Your task to perform on an android device: add a contact Image 0: 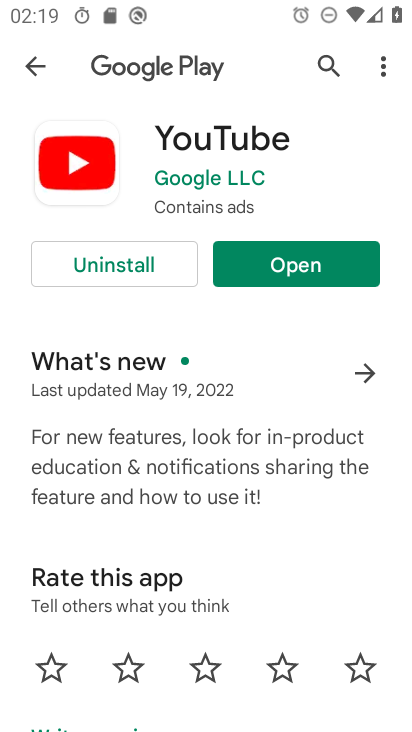
Step 0: press home button
Your task to perform on an android device: add a contact Image 1: 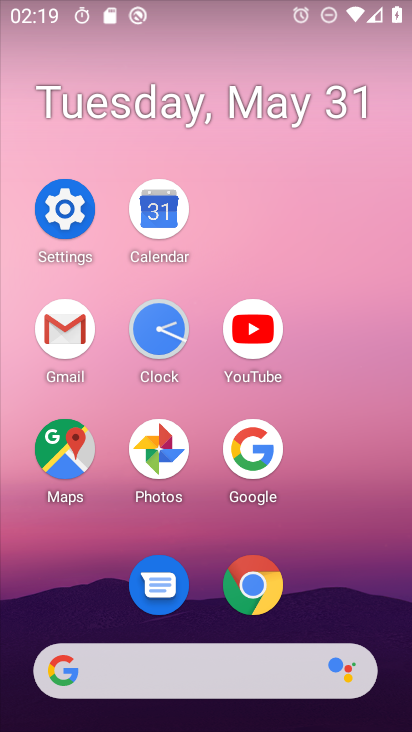
Step 1: drag from (348, 492) to (351, 121)
Your task to perform on an android device: add a contact Image 2: 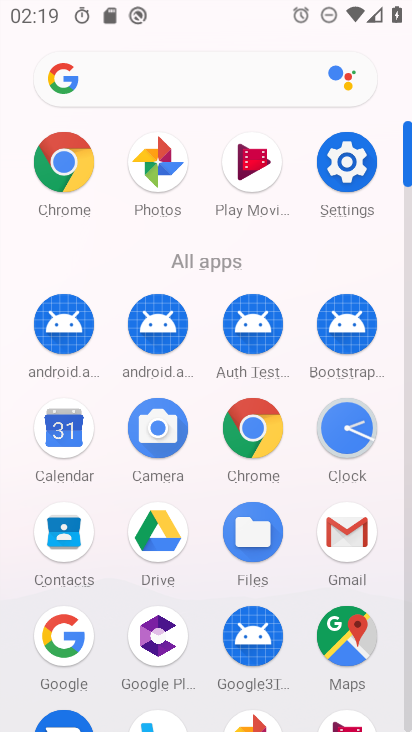
Step 2: click (79, 546)
Your task to perform on an android device: add a contact Image 3: 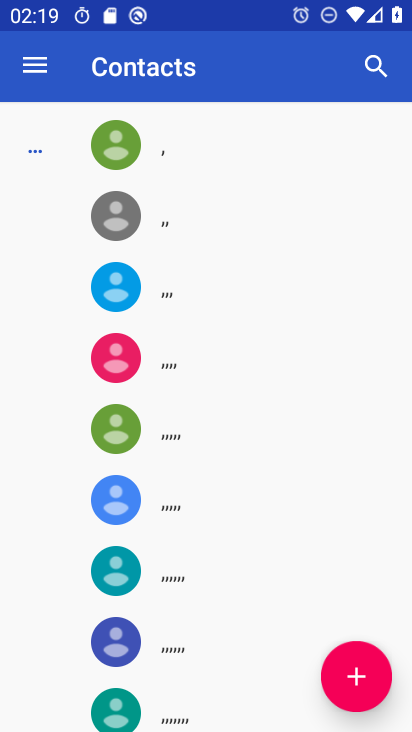
Step 3: click (341, 677)
Your task to perform on an android device: add a contact Image 4: 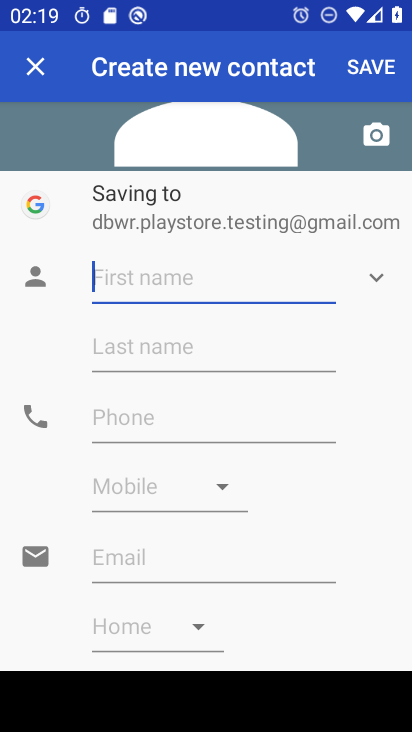
Step 4: type "yydde"
Your task to perform on an android device: add a contact Image 5: 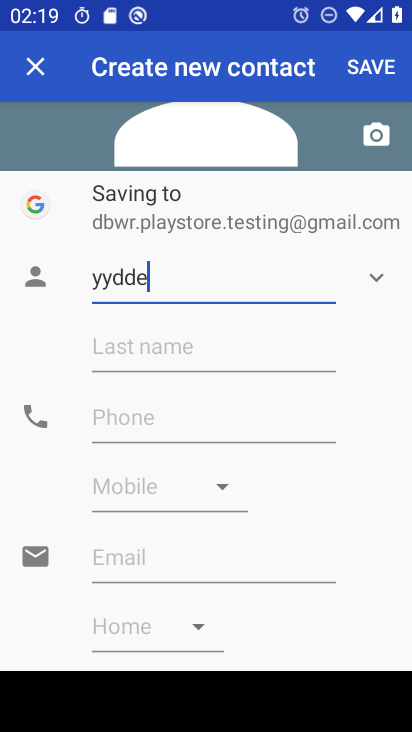
Step 5: click (194, 415)
Your task to perform on an android device: add a contact Image 6: 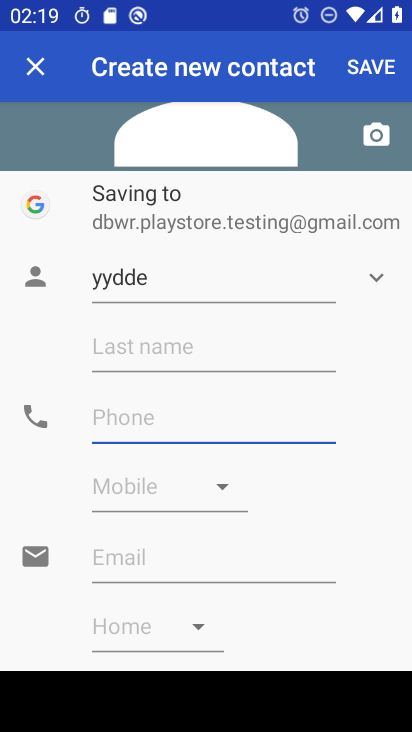
Step 6: type "9988776654"
Your task to perform on an android device: add a contact Image 7: 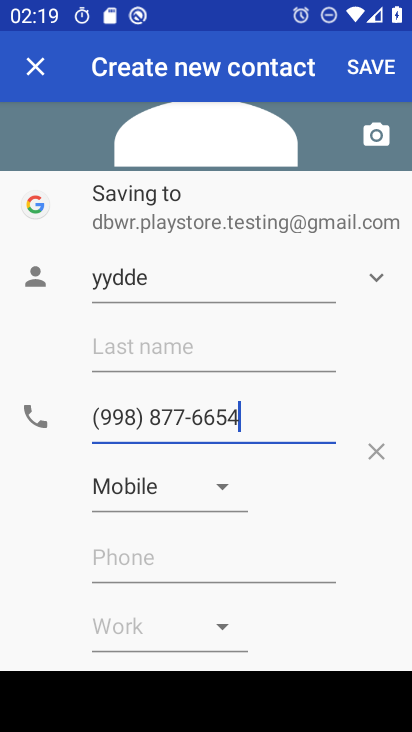
Step 7: click (390, 69)
Your task to perform on an android device: add a contact Image 8: 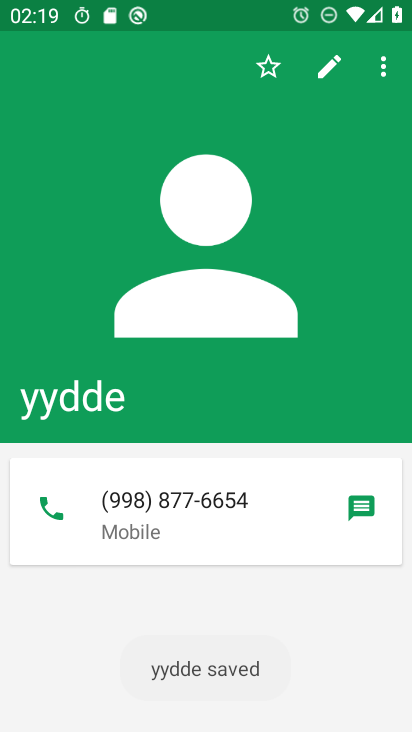
Step 8: task complete